Your task to perform on an android device: open app "Adobe Acrobat Reader: Edit PDF" (install if not already installed) Image 0: 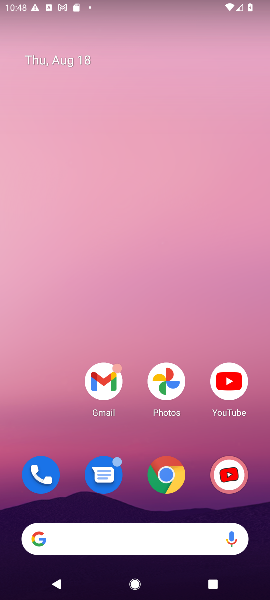
Step 0: drag from (132, 518) to (229, 476)
Your task to perform on an android device: open app "Adobe Acrobat Reader: Edit PDF" (install if not already installed) Image 1: 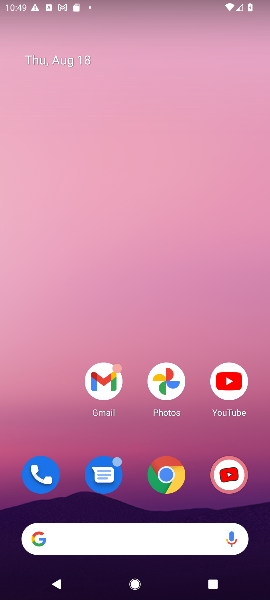
Step 1: drag from (142, 527) to (59, 68)
Your task to perform on an android device: open app "Adobe Acrobat Reader: Edit PDF" (install if not already installed) Image 2: 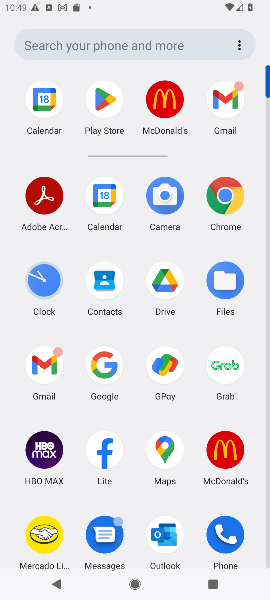
Step 2: click (111, 100)
Your task to perform on an android device: open app "Adobe Acrobat Reader: Edit PDF" (install if not already installed) Image 3: 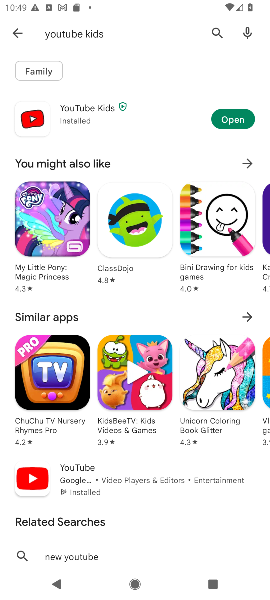
Step 3: click (25, 32)
Your task to perform on an android device: open app "Adobe Acrobat Reader: Edit PDF" (install if not already installed) Image 4: 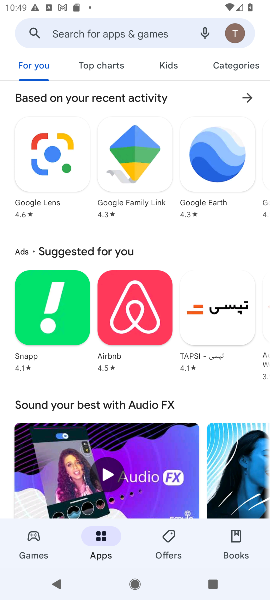
Step 4: click (49, 34)
Your task to perform on an android device: open app "Adobe Acrobat Reader: Edit PDF" (install if not already installed) Image 5: 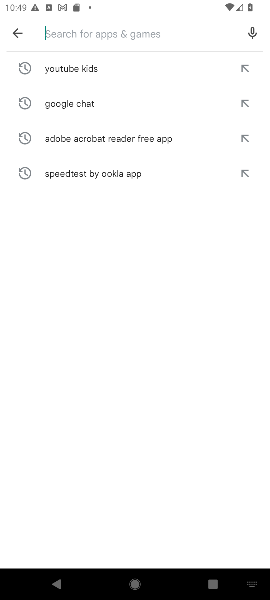
Step 5: click (73, 136)
Your task to perform on an android device: open app "Adobe Acrobat Reader: Edit PDF" (install if not already installed) Image 6: 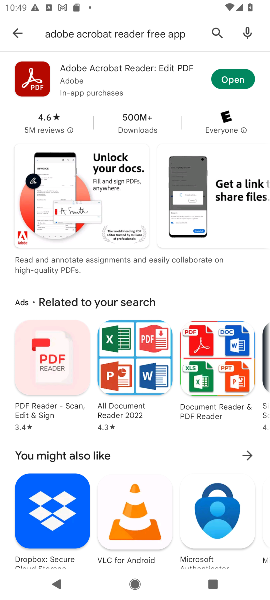
Step 6: click (244, 76)
Your task to perform on an android device: open app "Adobe Acrobat Reader: Edit PDF" (install if not already installed) Image 7: 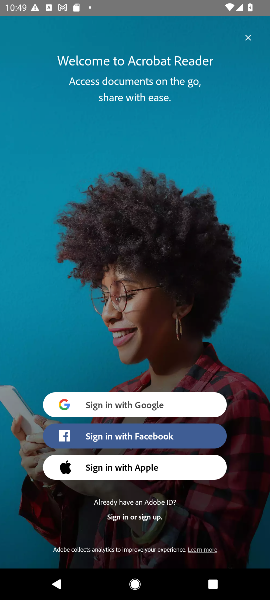
Step 7: task complete